Your task to perform on an android device: Open location settings Image 0: 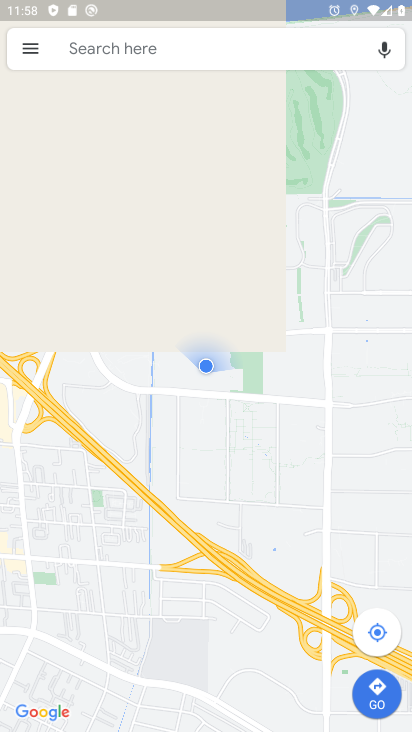
Step 0: press home button
Your task to perform on an android device: Open location settings Image 1: 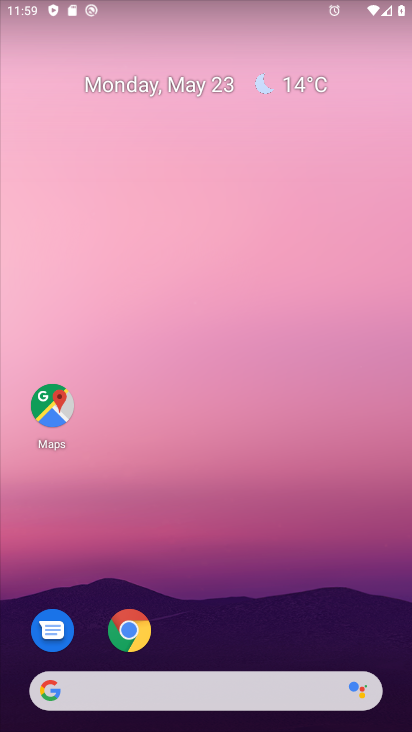
Step 1: drag from (225, 599) to (222, 168)
Your task to perform on an android device: Open location settings Image 2: 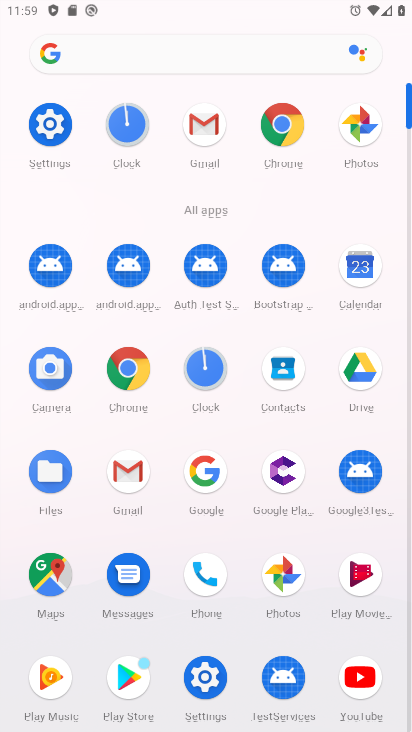
Step 2: click (50, 134)
Your task to perform on an android device: Open location settings Image 3: 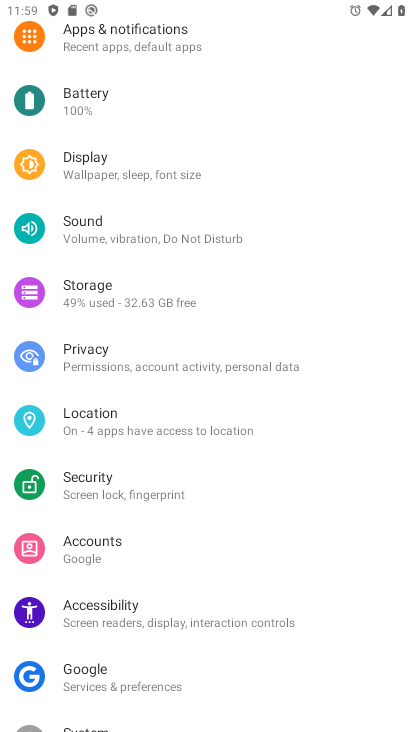
Step 3: click (138, 425)
Your task to perform on an android device: Open location settings Image 4: 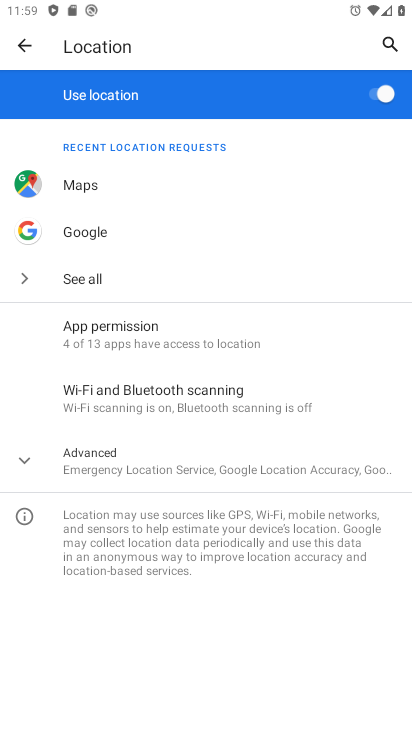
Step 4: click (260, 467)
Your task to perform on an android device: Open location settings Image 5: 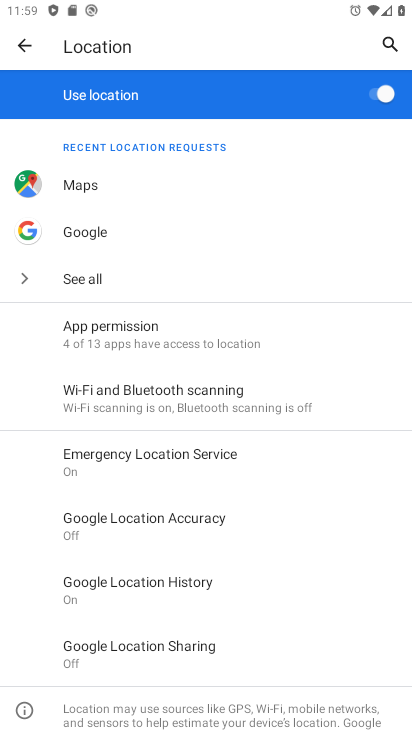
Step 5: task complete